Your task to perform on an android device: change the clock style Image 0: 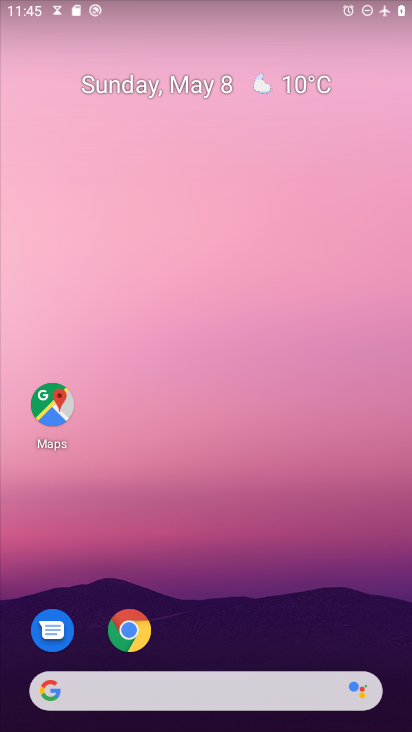
Step 0: press home button
Your task to perform on an android device: change the clock style Image 1: 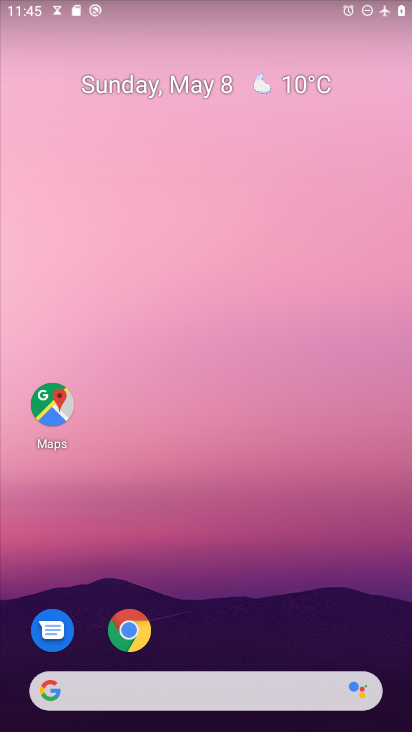
Step 1: drag from (205, 684) to (372, 133)
Your task to perform on an android device: change the clock style Image 2: 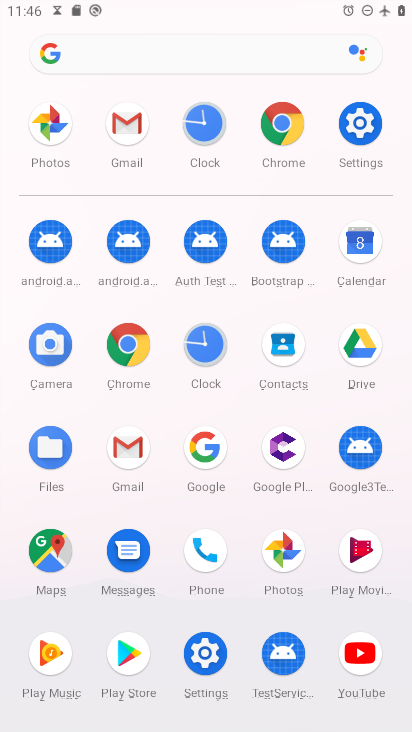
Step 2: click (198, 128)
Your task to perform on an android device: change the clock style Image 3: 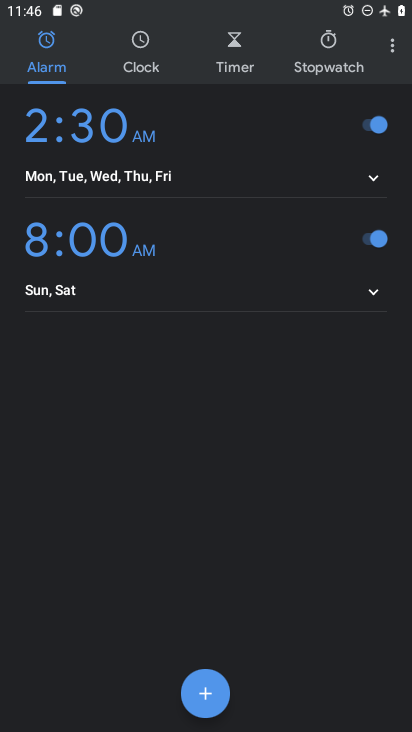
Step 3: click (392, 48)
Your task to perform on an android device: change the clock style Image 4: 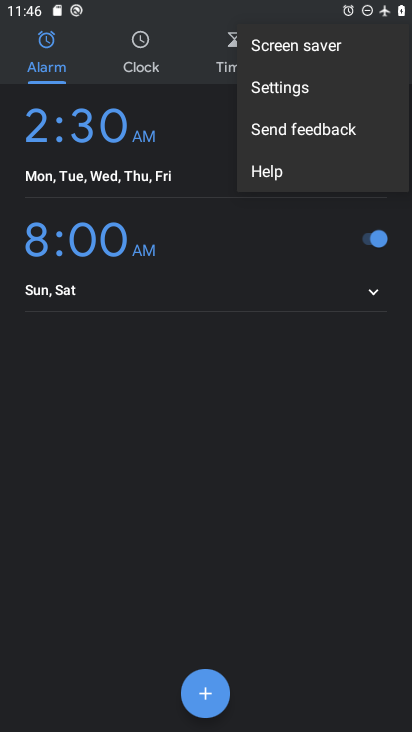
Step 4: click (298, 89)
Your task to perform on an android device: change the clock style Image 5: 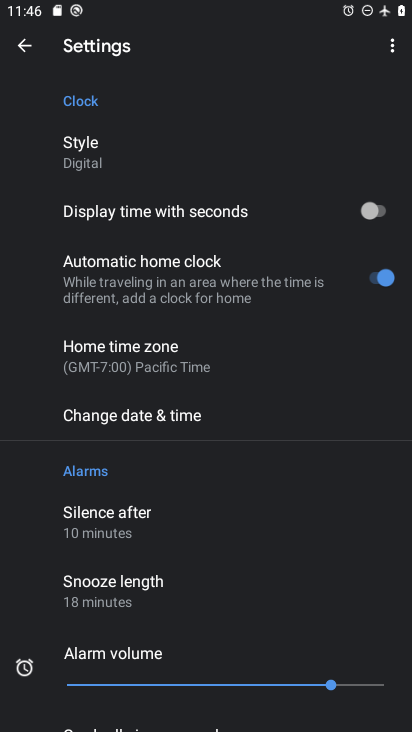
Step 5: click (91, 162)
Your task to perform on an android device: change the clock style Image 6: 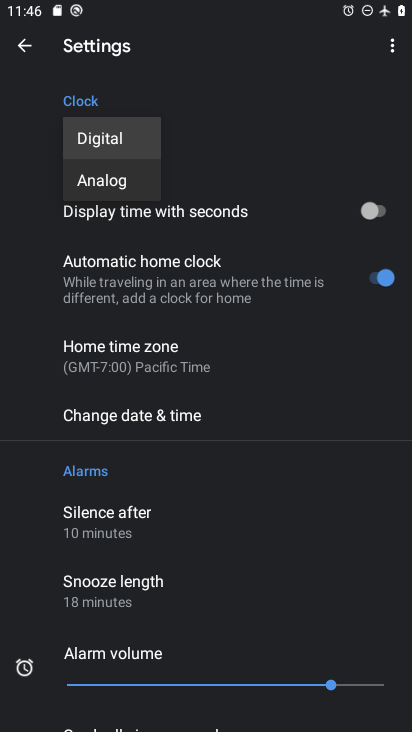
Step 6: click (126, 183)
Your task to perform on an android device: change the clock style Image 7: 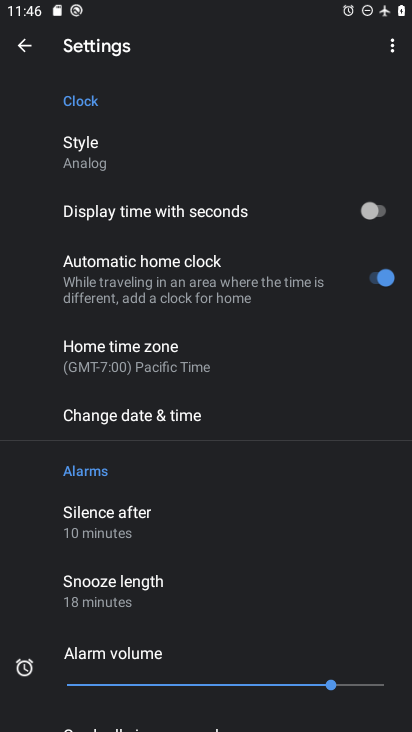
Step 7: task complete